Your task to perform on an android device: open wifi settings Image 0: 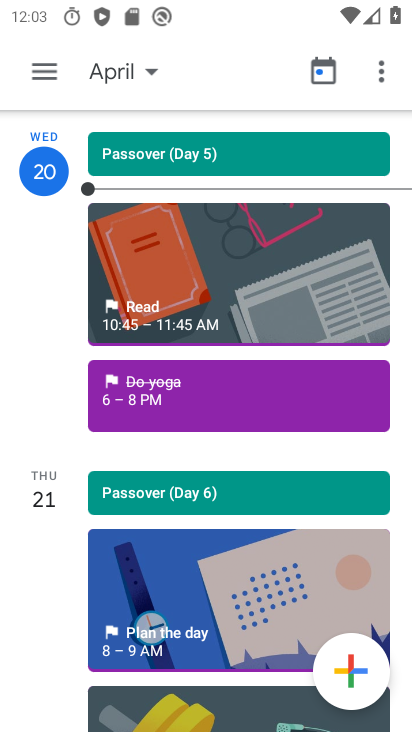
Step 0: press home button
Your task to perform on an android device: open wifi settings Image 1: 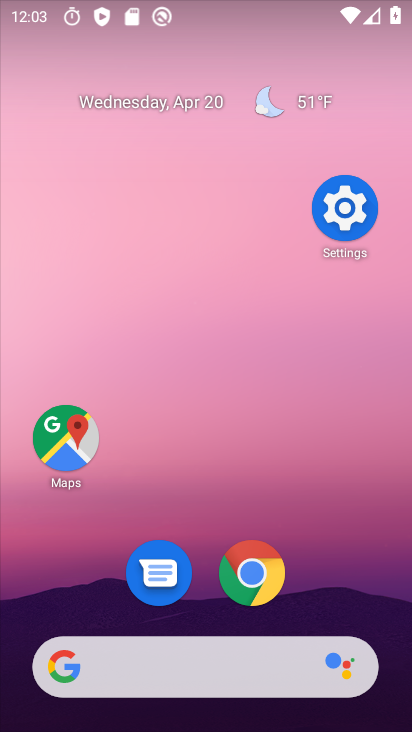
Step 1: click (350, 216)
Your task to perform on an android device: open wifi settings Image 2: 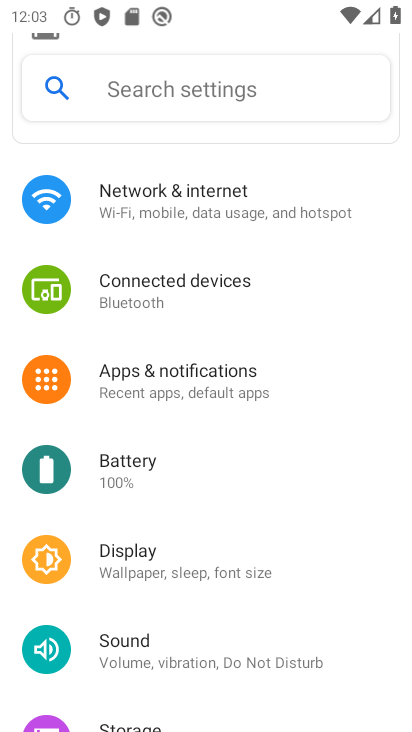
Step 2: click (208, 211)
Your task to perform on an android device: open wifi settings Image 3: 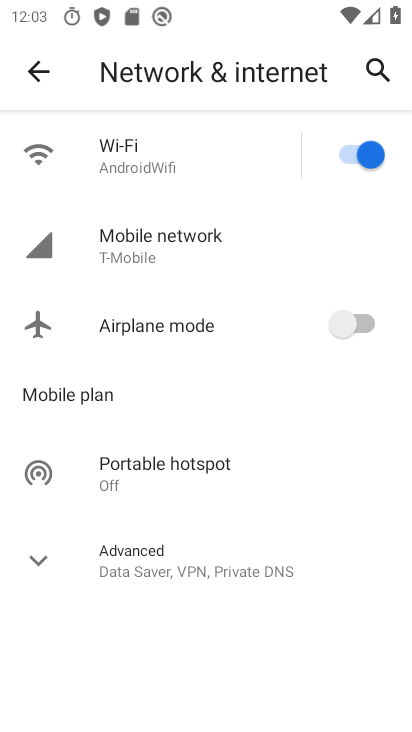
Step 3: click (174, 154)
Your task to perform on an android device: open wifi settings Image 4: 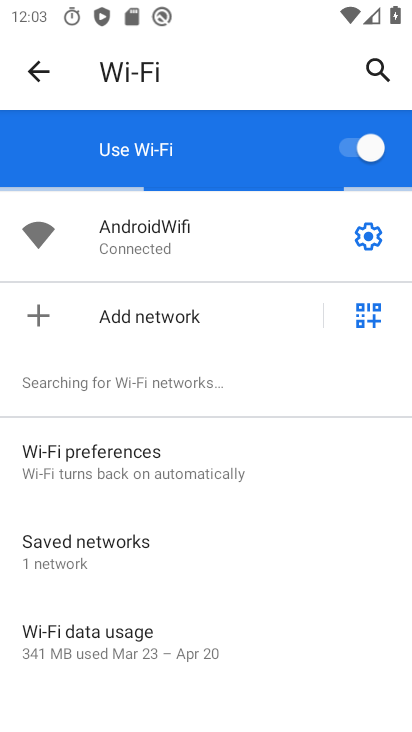
Step 4: task complete